Your task to perform on an android device: Add "macbook air" to the cart on target, then select checkout. Image 0: 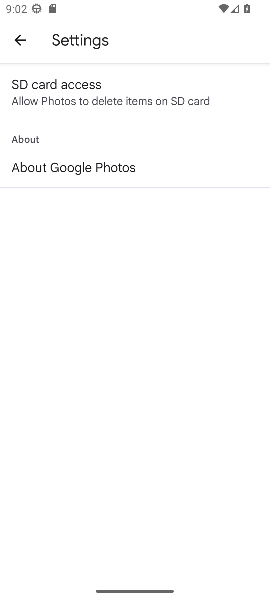
Step 0: press home button
Your task to perform on an android device: Add "macbook air" to the cart on target, then select checkout. Image 1: 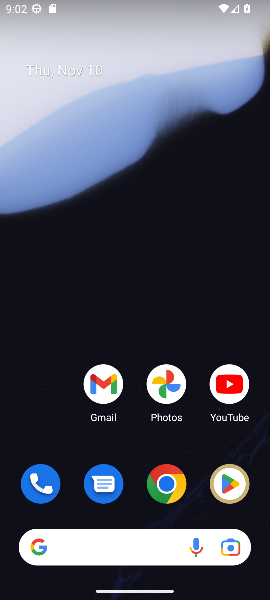
Step 1: click (169, 479)
Your task to perform on an android device: Add "macbook air" to the cart on target, then select checkout. Image 2: 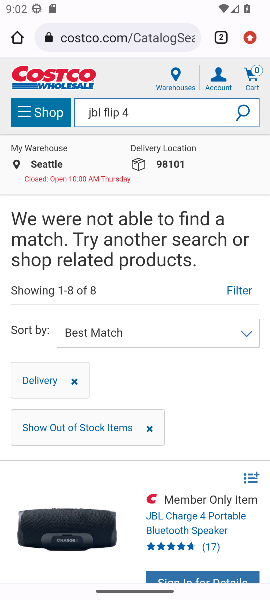
Step 2: click (115, 43)
Your task to perform on an android device: Add "macbook air" to the cart on target, then select checkout. Image 3: 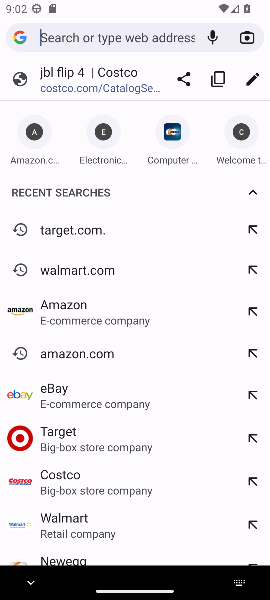
Step 3: click (76, 231)
Your task to perform on an android device: Add "macbook air" to the cart on target, then select checkout. Image 4: 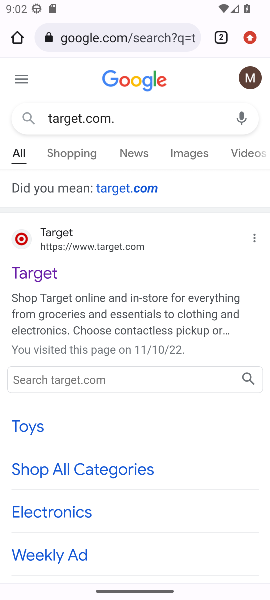
Step 4: click (53, 281)
Your task to perform on an android device: Add "macbook air" to the cart on target, then select checkout. Image 5: 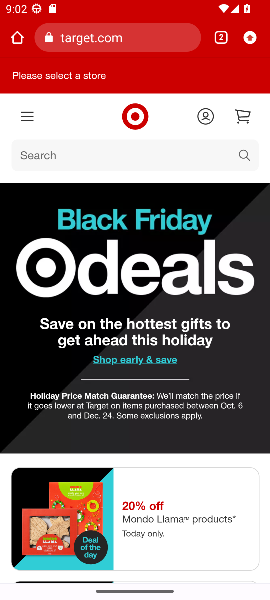
Step 5: click (241, 159)
Your task to perform on an android device: Add "macbook air" to the cart on target, then select checkout. Image 6: 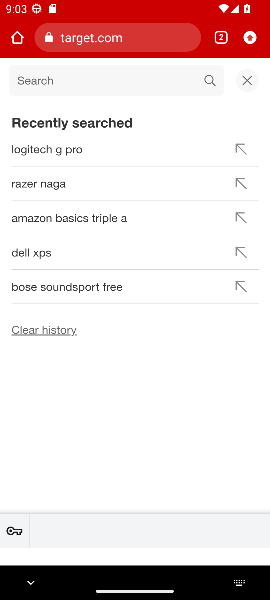
Step 6: type "macbook"
Your task to perform on an android device: Add "macbook air" to the cart on target, then select checkout. Image 7: 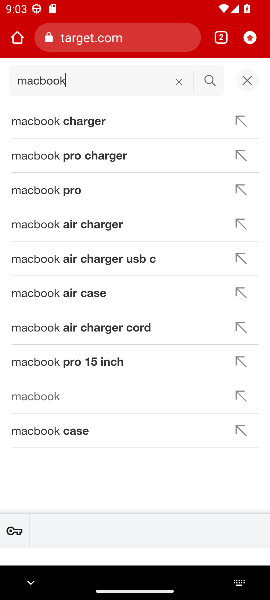
Step 7: click (75, 79)
Your task to perform on an android device: Add "macbook air" to the cart on target, then select checkout. Image 8: 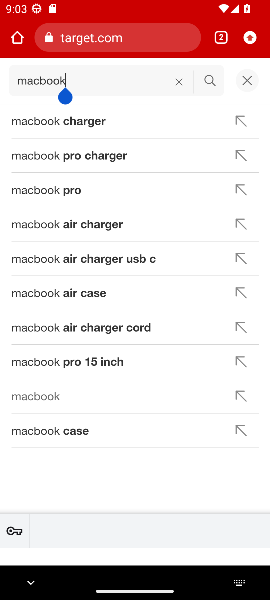
Step 8: type " air"
Your task to perform on an android device: Add "macbook air" to the cart on target, then select checkout. Image 9: 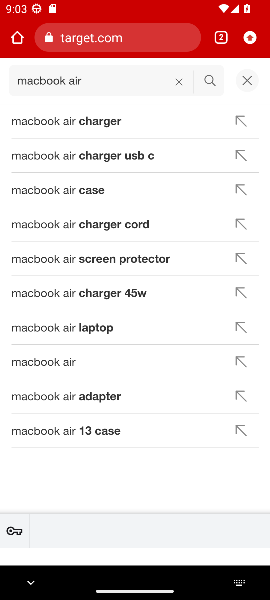
Step 9: click (57, 361)
Your task to perform on an android device: Add "macbook air" to the cart on target, then select checkout. Image 10: 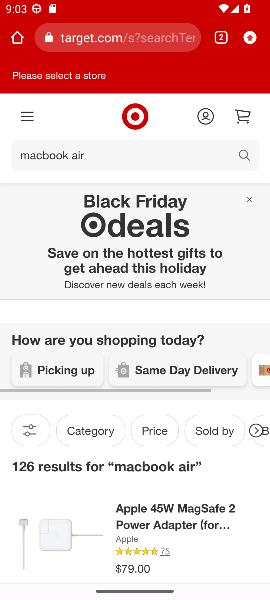
Step 10: task complete